Your task to perform on an android device: open chrome privacy settings Image 0: 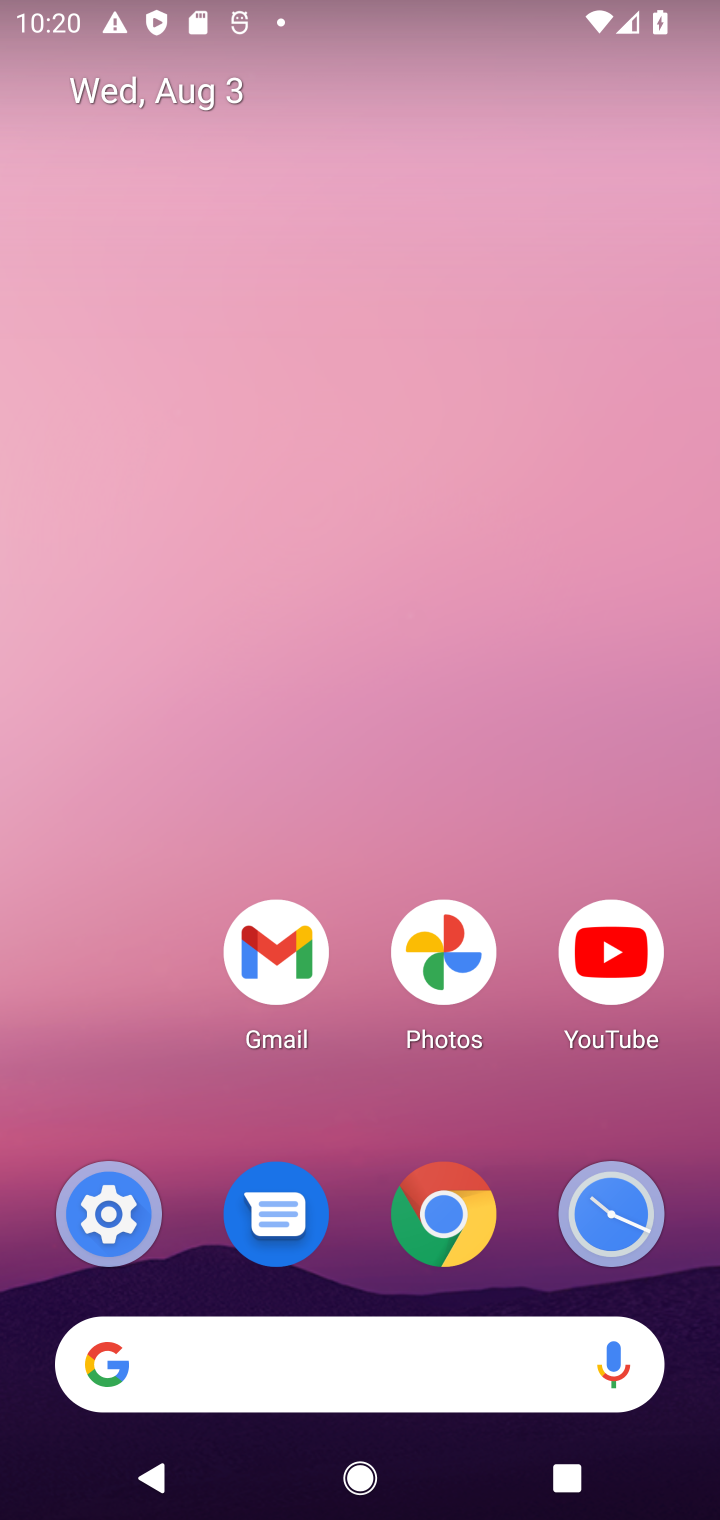
Step 0: drag from (467, 1129) to (493, 111)
Your task to perform on an android device: open chrome privacy settings Image 1: 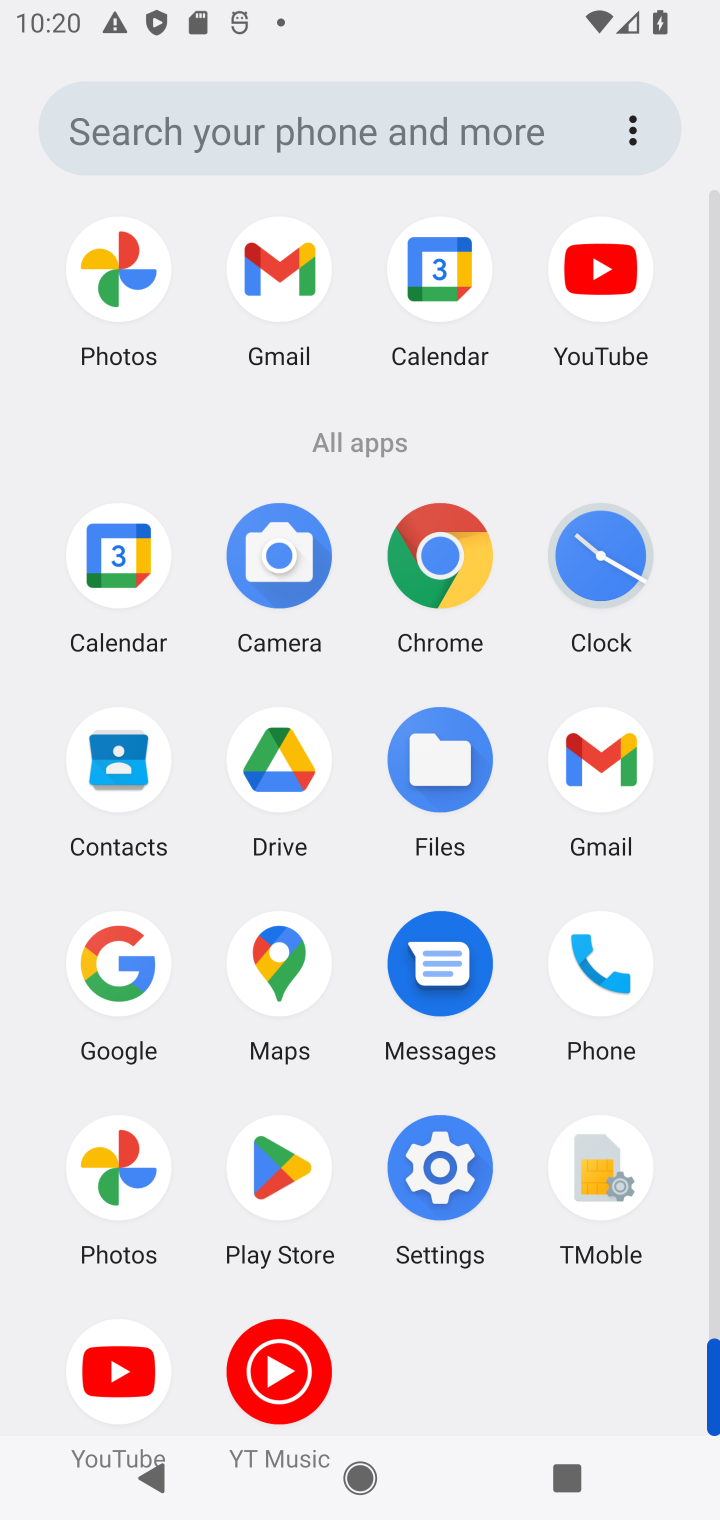
Step 1: click (438, 561)
Your task to perform on an android device: open chrome privacy settings Image 2: 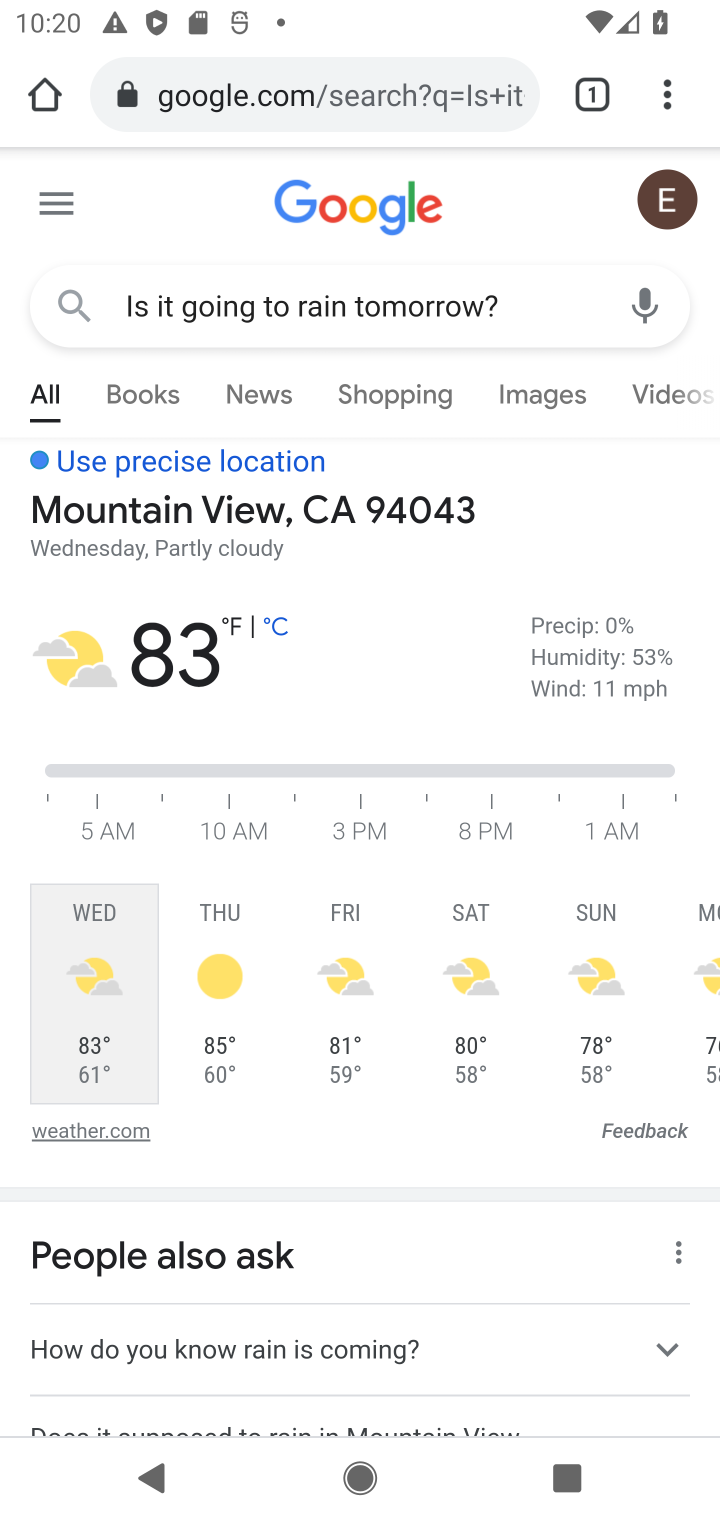
Step 2: drag from (661, 96) to (453, 1228)
Your task to perform on an android device: open chrome privacy settings Image 3: 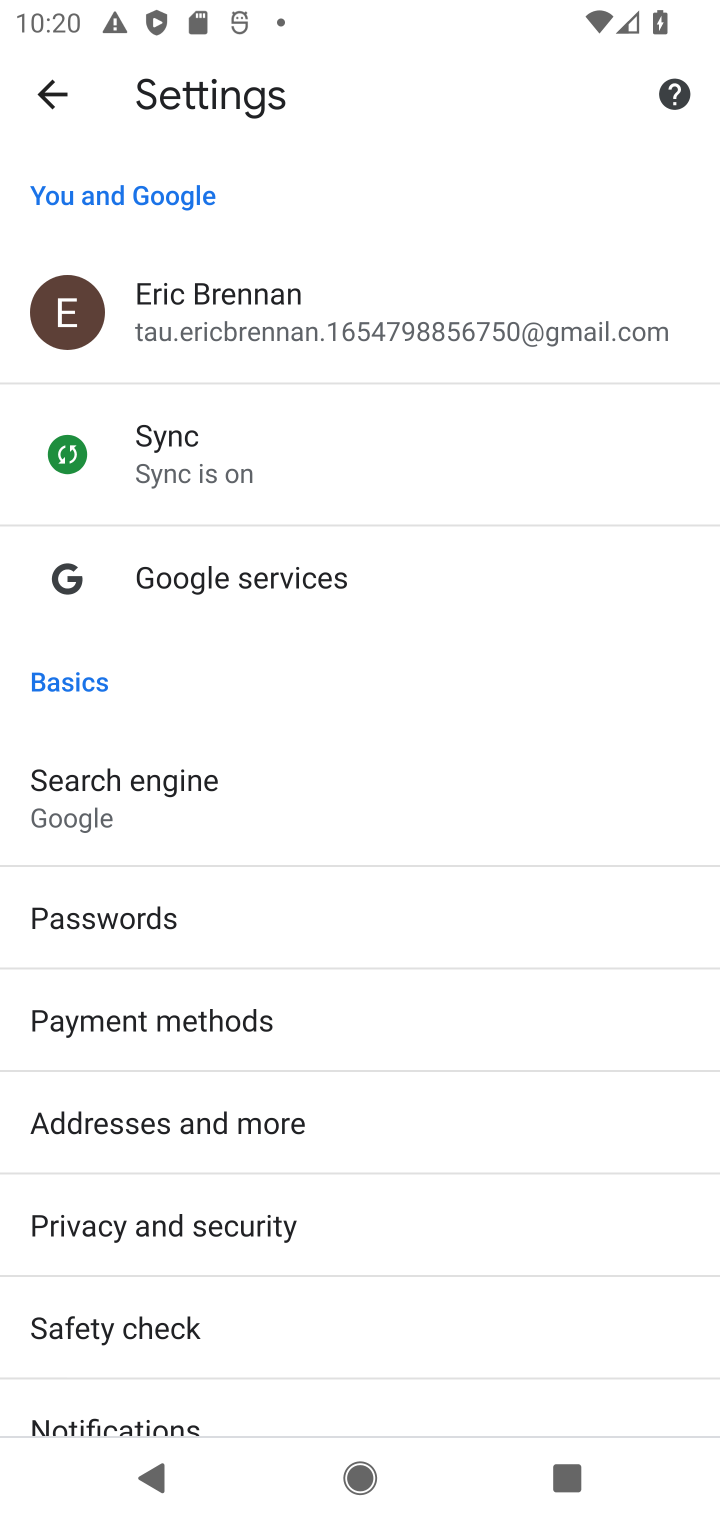
Step 3: drag from (380, 1195) to (428, 367)
Your task to perform on an android device: open chrome privacy settings Image 4: 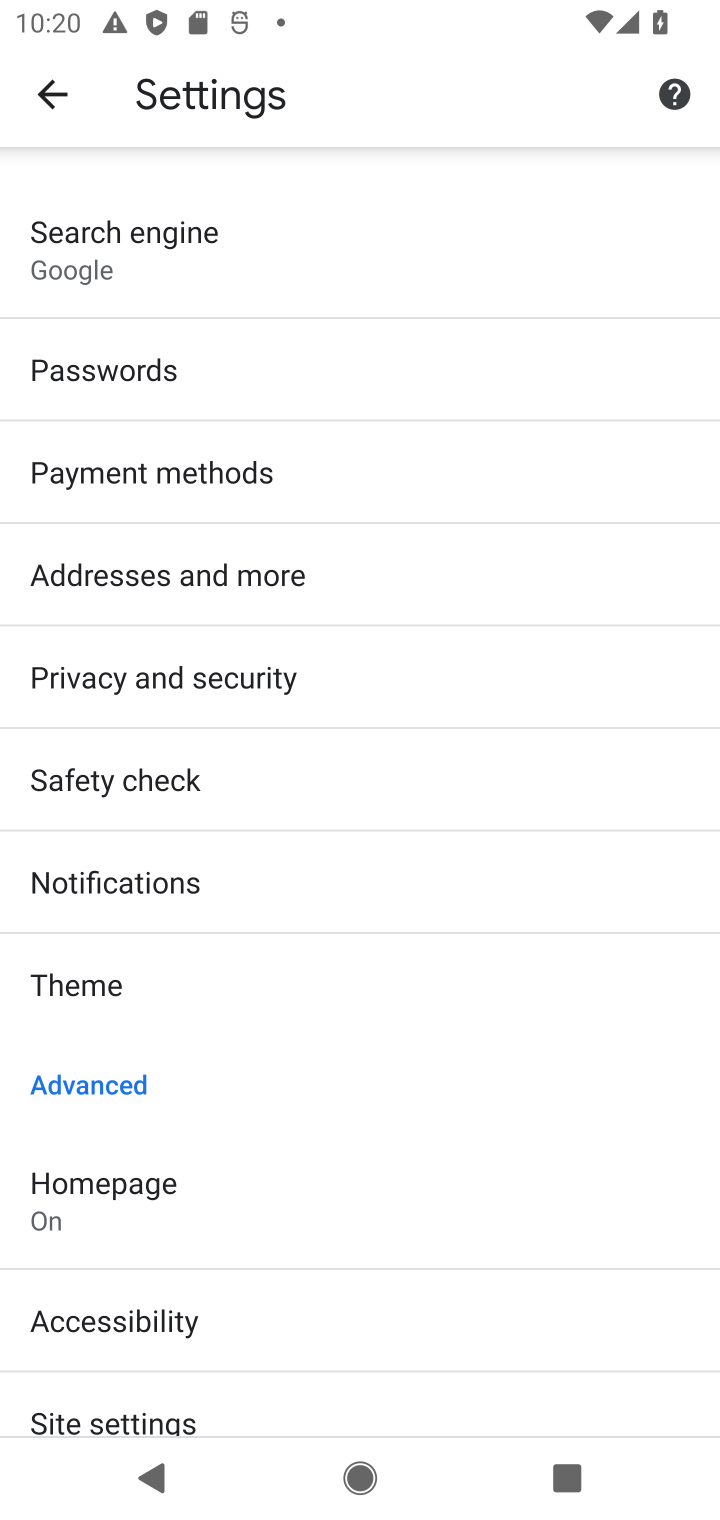
Step 4: drag from (283, 1335) to (304, 398)
Your task to perform on an android device: open chrome privacy settings Image 5: 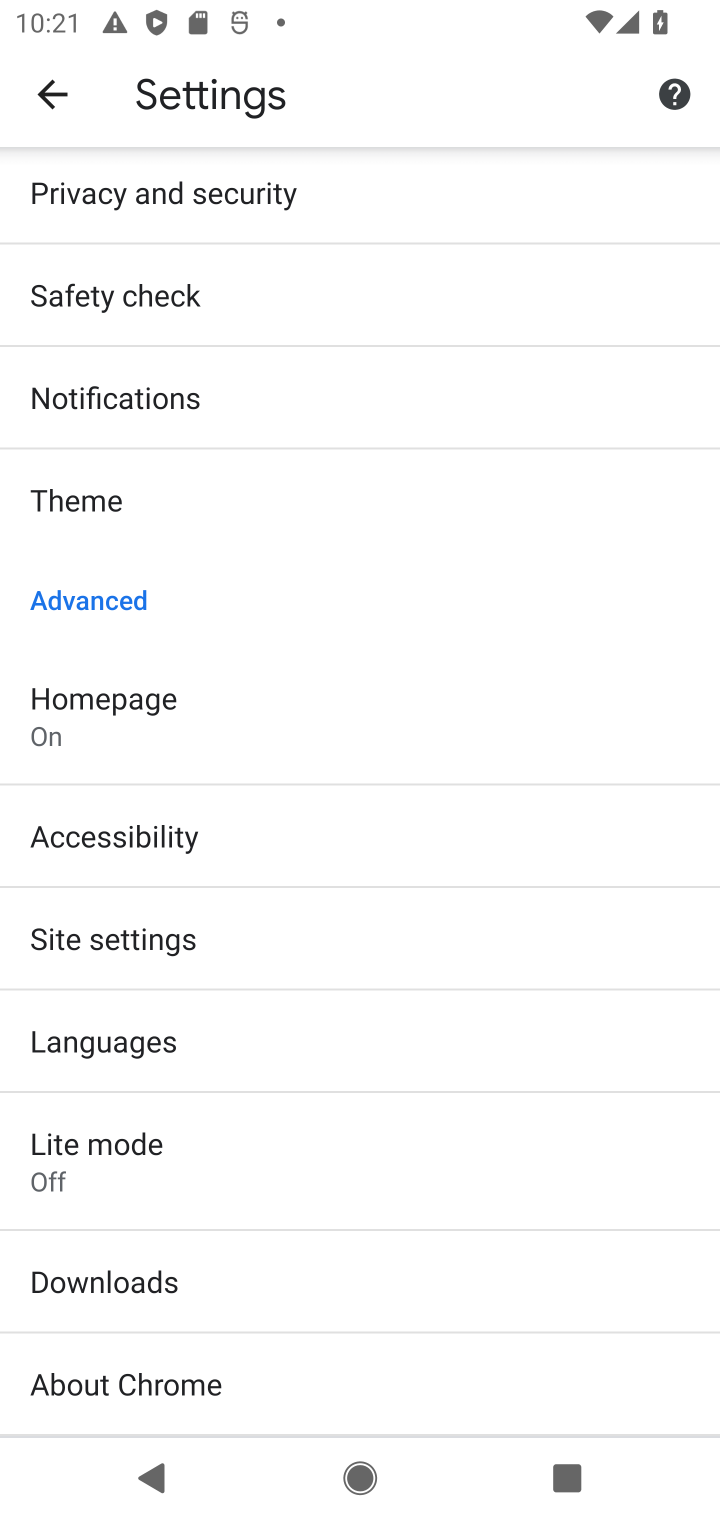
Step 5: drag from (324, 1354) to (400, 525)
Your task to perform on an android device: open chrome privacy settings Image 6: 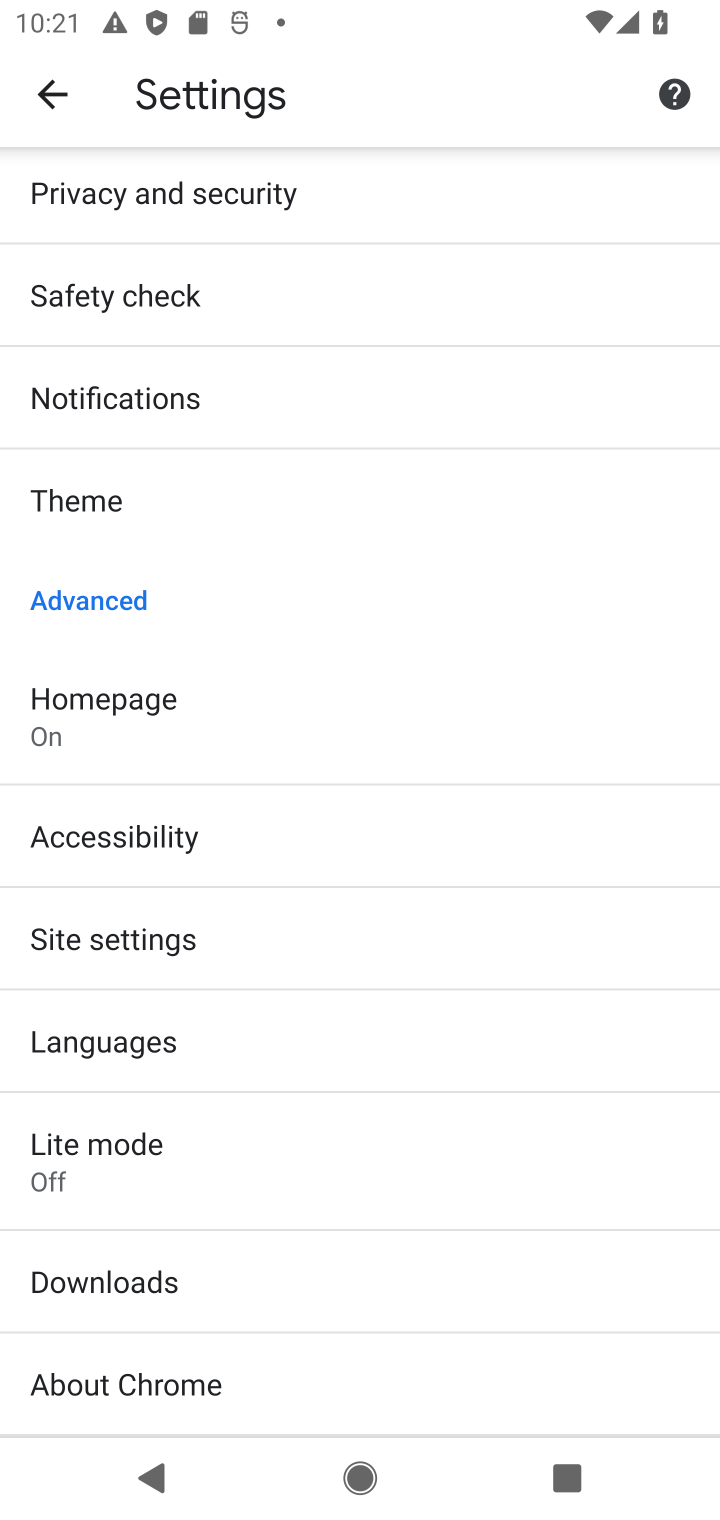
Step 6: drag from (433, 440) to (342, 1103)
Your task to perform on an android device: open chrome privacy settings Image 7: 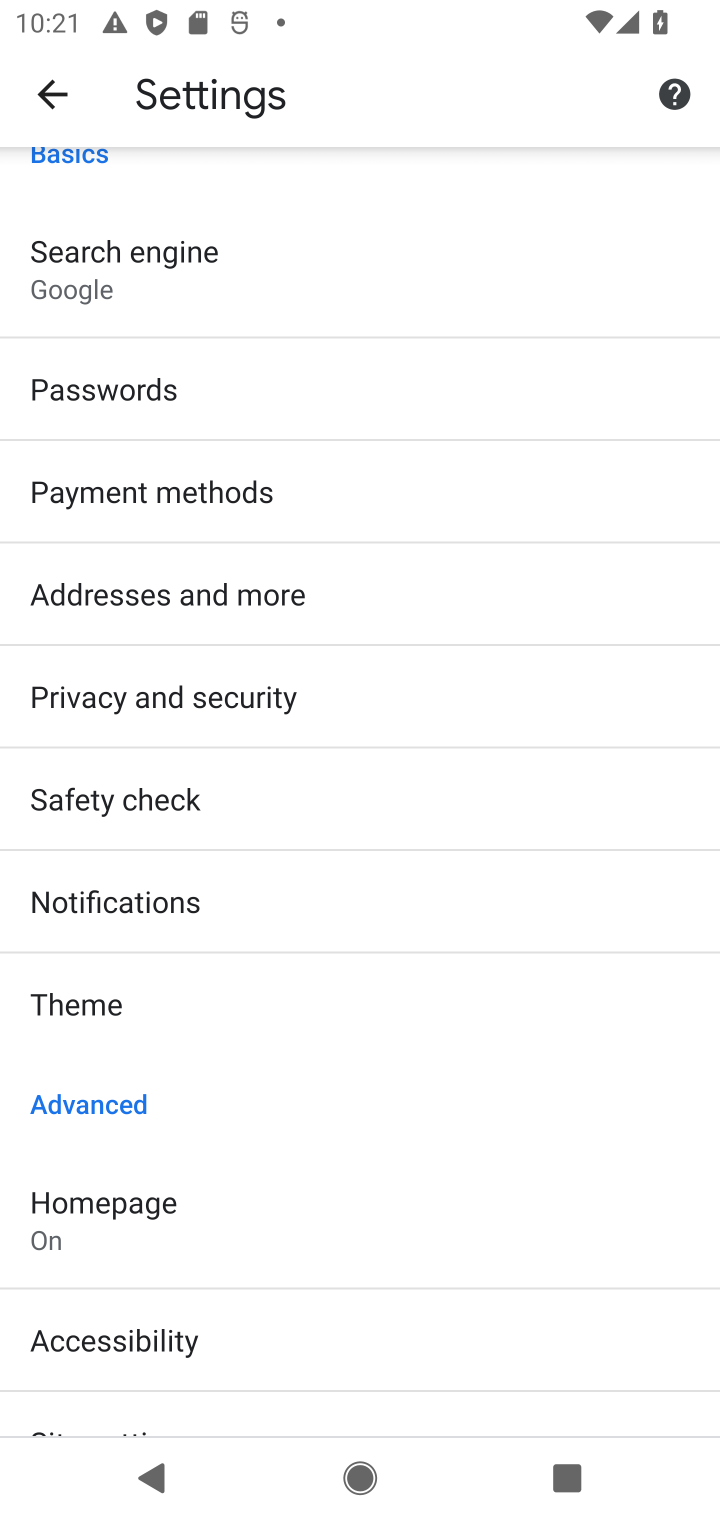
Step 7: click (253, 698)
Your task to perform on an android device: open chrome privacy settings Image 8: 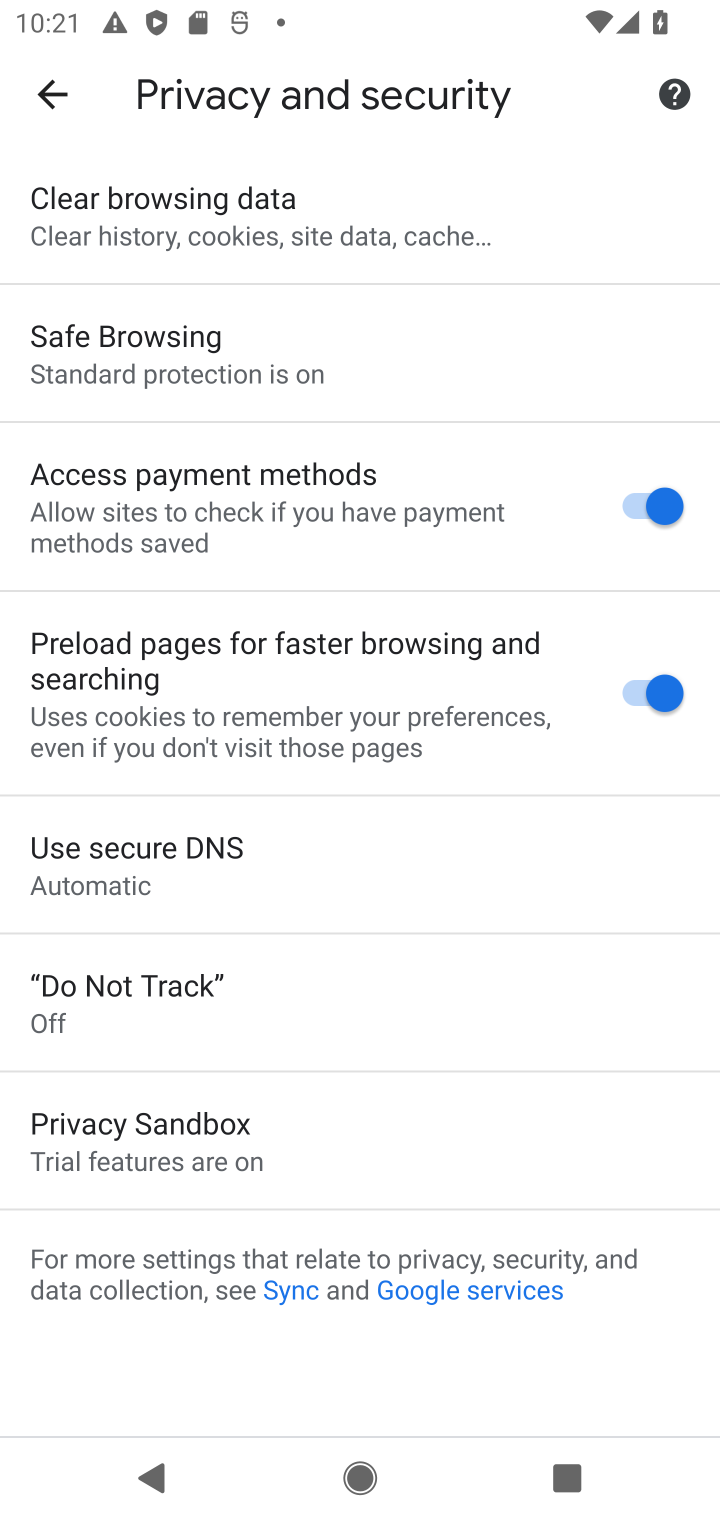
Step 8: click (287, 200)
Your task to perform on an android device: open chrome privacy settings Image 9: 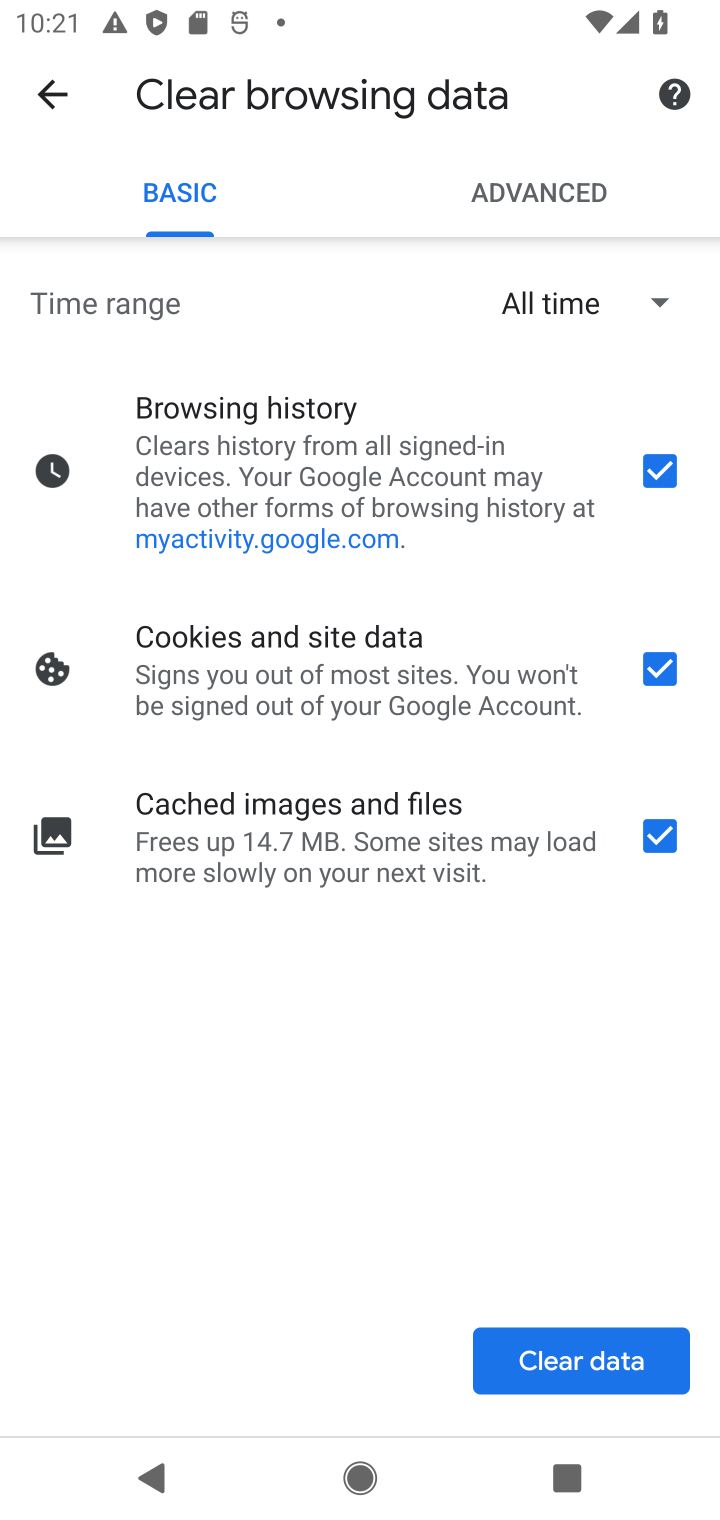
Step 9: task complete